Your task to perform on an android device: Open Google Maps and go to "Timeline" Image 0: 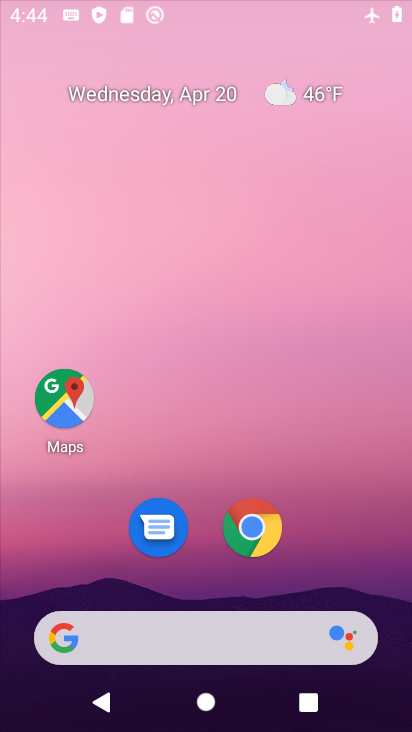
Step 0: drag from (211, 431) to (203, 191)
Your task to perform on an android device: Open Google Maps and go to "Timeline" Image 1: 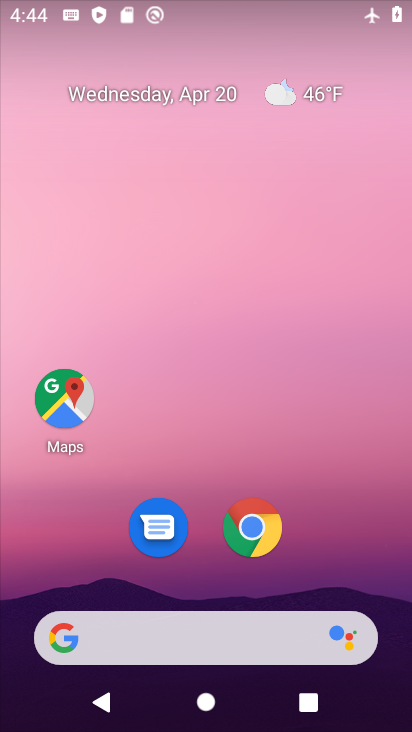
Step 1: drag from (197, 597) to (159, 130)
Your task to perform on an android device: Open Google Maps and go to "Timeline" Image 2: 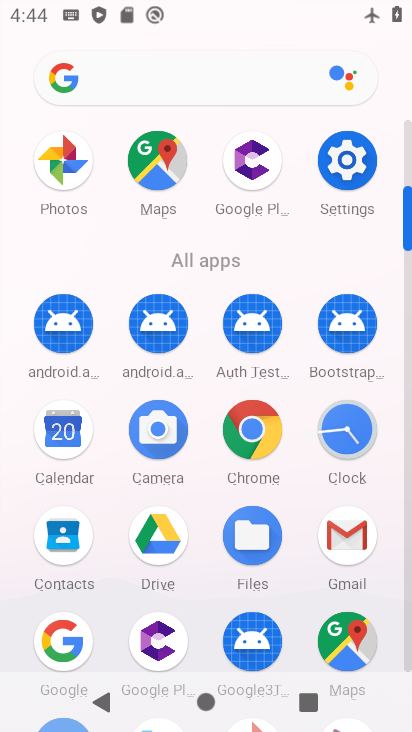
Step 2: click (359, 643)
Your task to perform on an android device: Open Google Maps and go to "Timeline" Image 3: 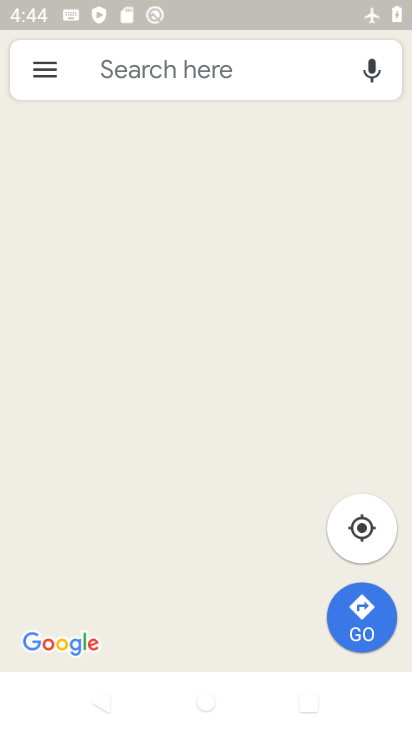
Step 3: click (43, 75)
Your task to perform on an android device: Open Google Maps and go to "Timeline" Image 4: 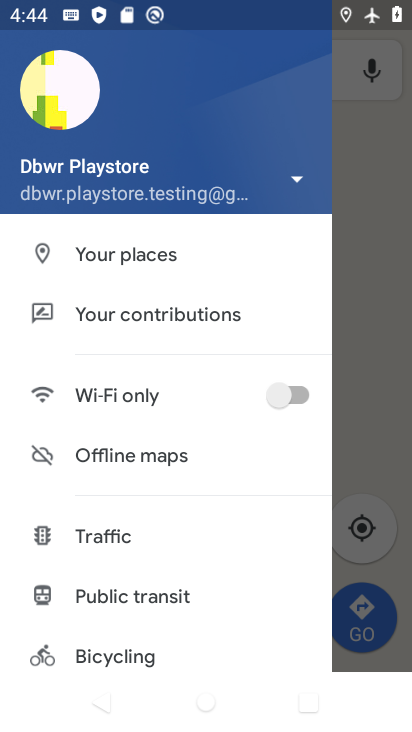
Step 4: task complete